Your task to perform on an android device: Open Wikipedia Image 0: 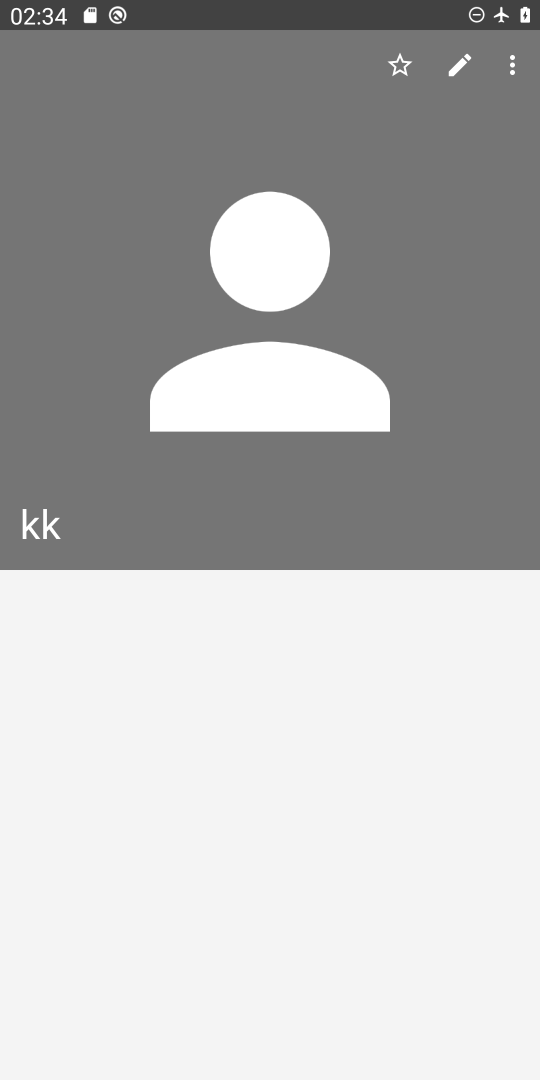
Step 0: press home button
Your task to perform on an android device: Open Wikipedia Image 1: 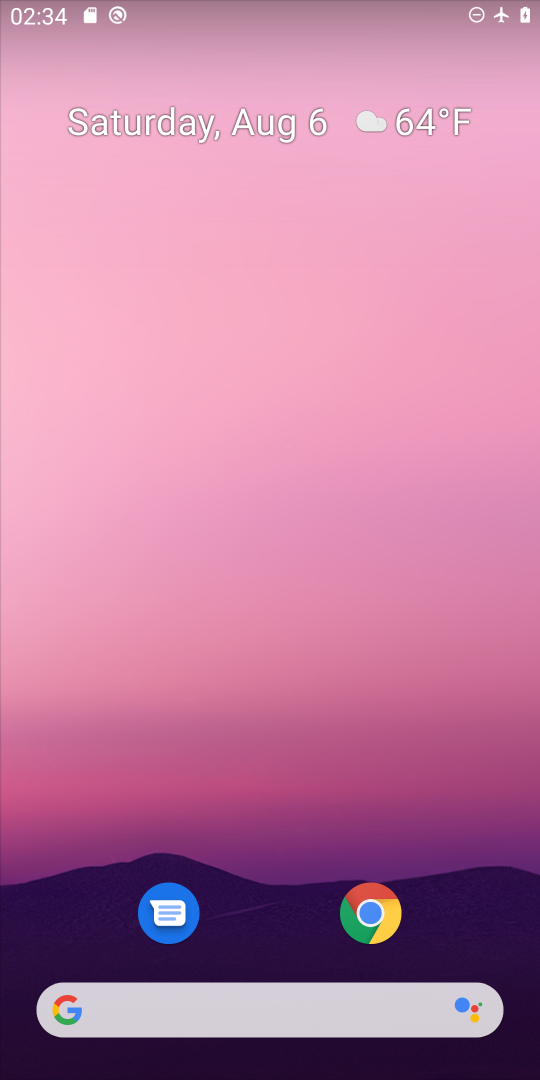
Step 1: press home button
Your task to perform on an android device: Open Wikipedia Image 2: 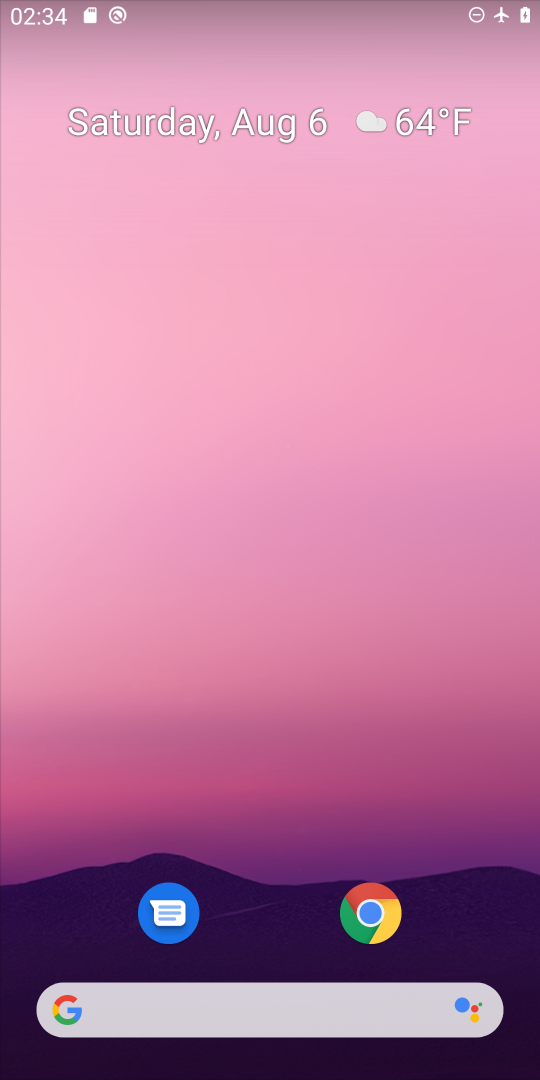
Step 2: drag from (291, 883) to (322, 129)
Your task to perform on an android device: Open Wikipedia Image 3: 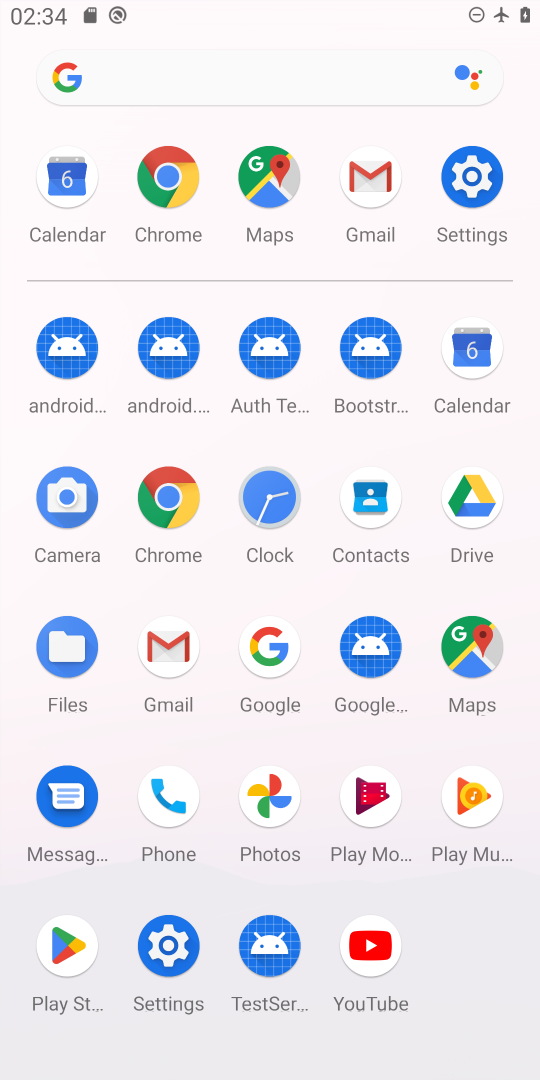
Step 3: click (166, 490)
Your task to perform on an android device: Open Wikipedia Image 4: 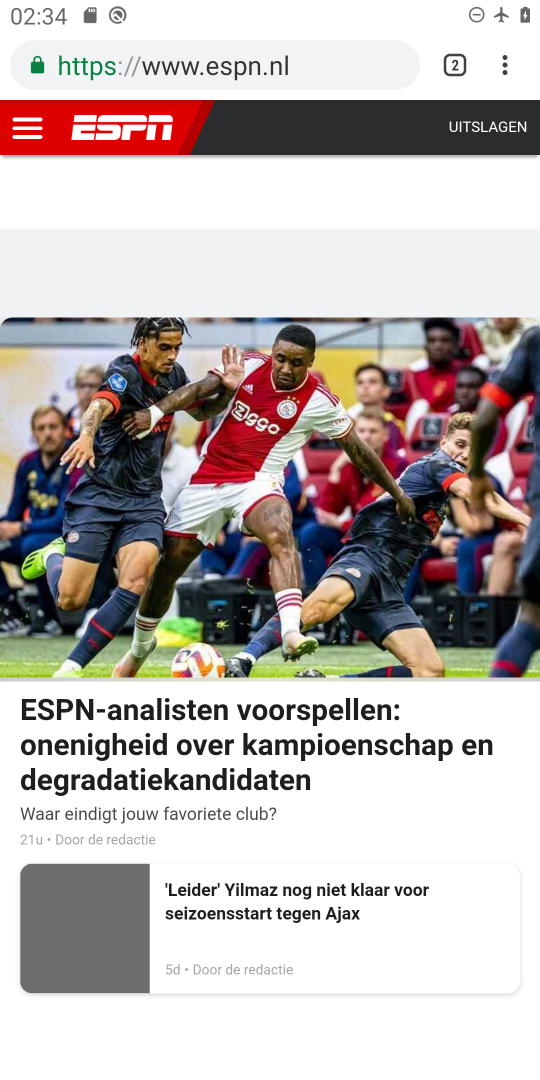
Step 4: click (295, 73)
Your task to perform on an android device: Open Wikipedia Image 5: 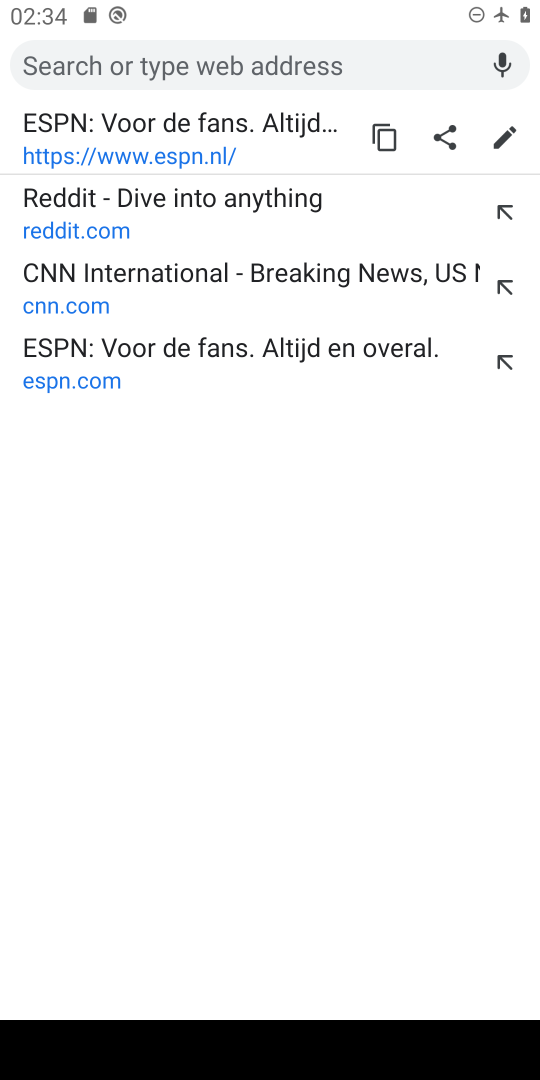
Step 5: type "wikipedia"
Your task to perform on an android device: Open Wikipedia Image 6: 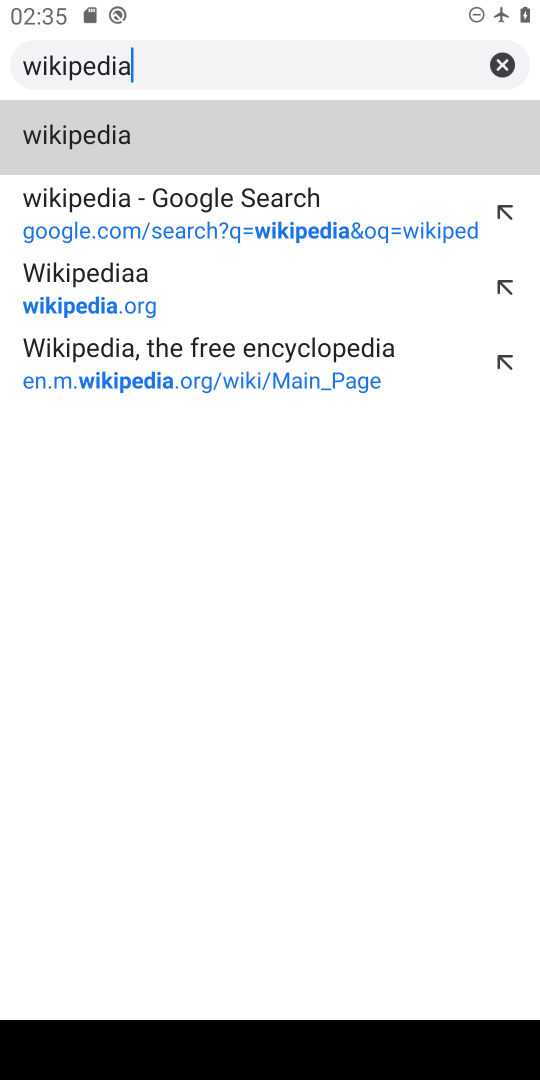
Step 6: click (148, 132)
Your task to perform on an android device: Open Wikipedia Image 7: 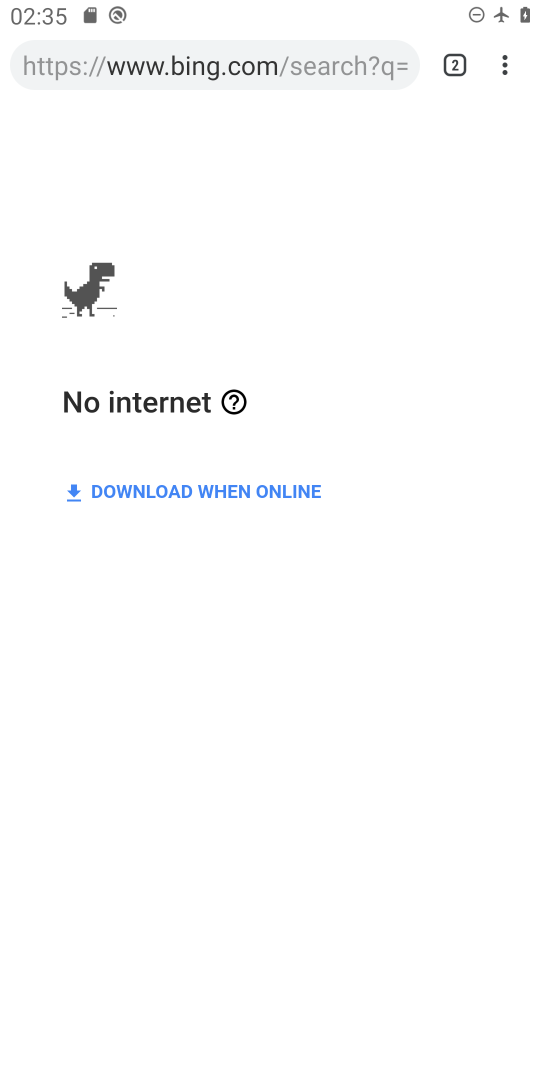
Step 7: task complete